Your task to perform on an android device: open app "Google Sheets" (install if not already installed) Image 0: 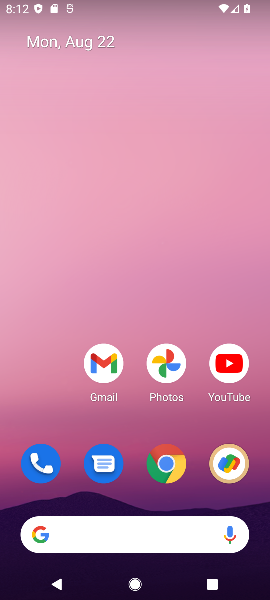
Step 0: drag from (137, 378) to (137, 98)
Your task to perform on an android device: open app "Google Sheets" (install if not already installed) Image 1: 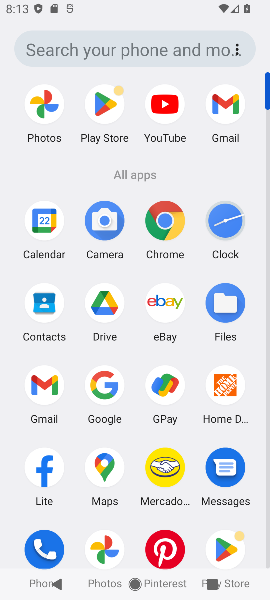
Step 1: click (107, 120)
Your task to perform on an android device: open app "Google Sheets" (install if not already installed) Image 2: 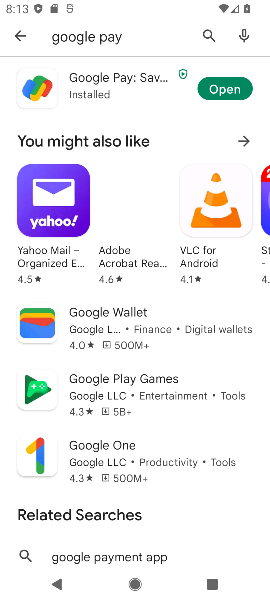
Step 2: click (21, 38)
Your task to perform on an android device: open app "Google Sheets" (install if not already installed) Image 3: 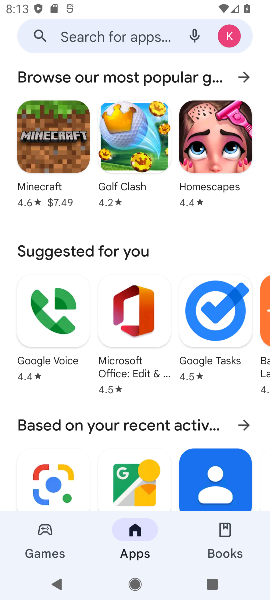
Step 3: click (106, 37)
Your task to perform on an android device: open app "Google Sheets" (install if not already installed) Image 4: 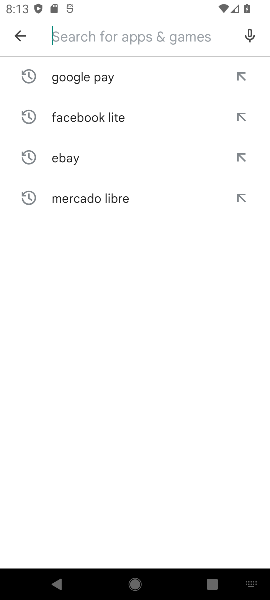
Step 4: type "Google Sheets"
Your task to perform on an android device: open app "Google Sheets" (install if not already installed) Image 5: 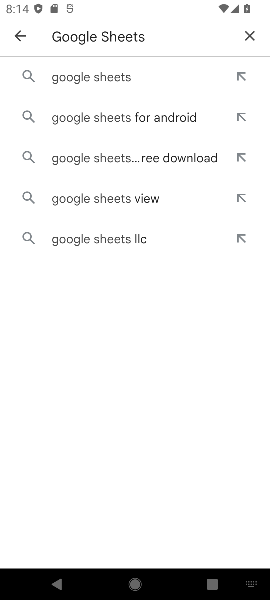
Step 5: click (87, 75)
Your task to perform on an android device: open app "Google Sheets" (install if not already installed) Image 6: 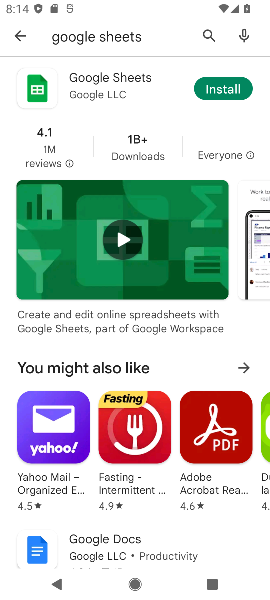
Step 6: click (224, 96)
Your task to perform on an android device: open app "Google Sheets" (install if not already installed) Image 7: 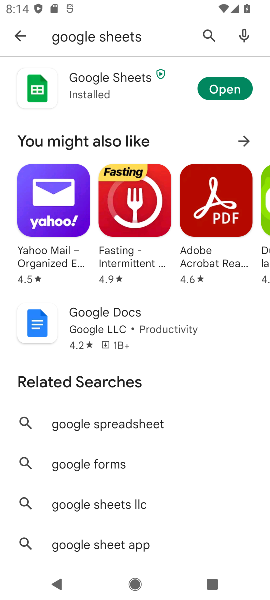
Step 7: click (224, 96)
Your task to perform on an android device: open app "Google Sheets" (install if not already installed) Image 8: 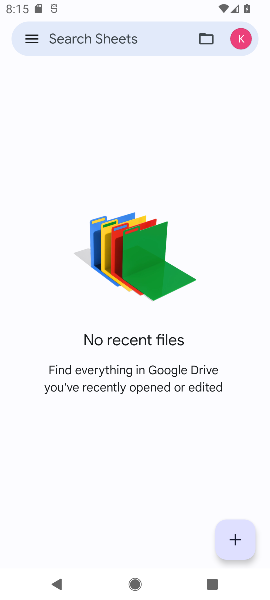
Step 8: task complete